Your task to perform on an android device: What's the weather? Image 0: 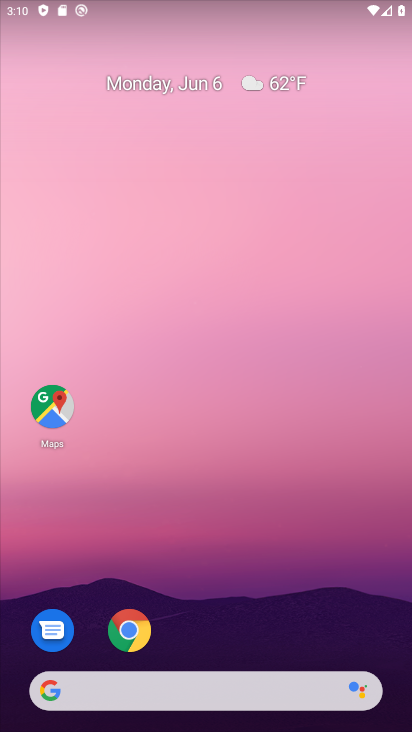
Step 0: press home button
Your task to perform on an android device: What's the weather? Image 1: 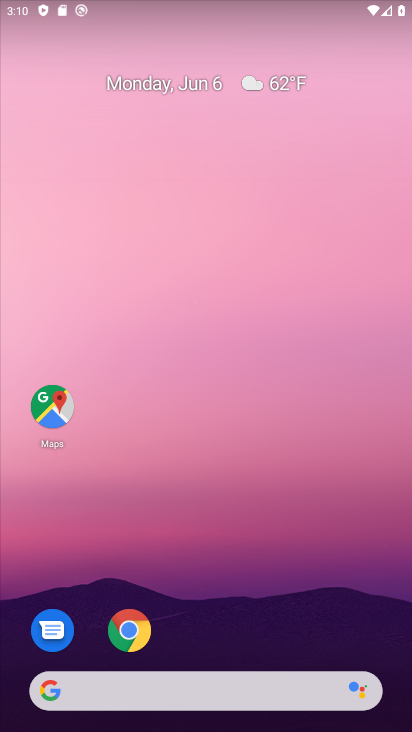
Step 1: click (120, 611)
Your task to perform on an android device: What's the weather? Image 2: 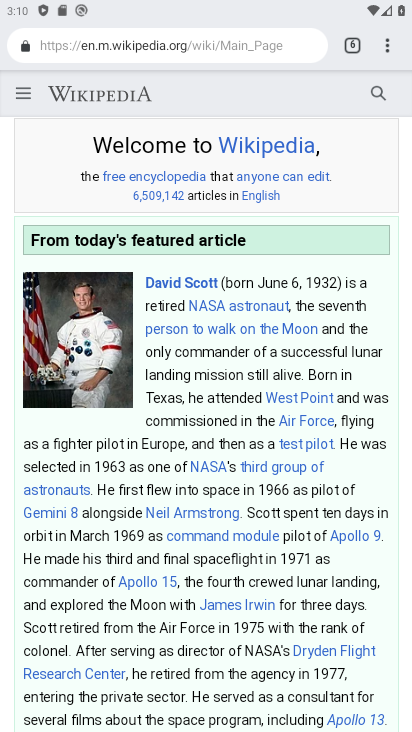
Step 2: click (170, 47)
Your task to perform on an android device: What's the weather? Image 3: 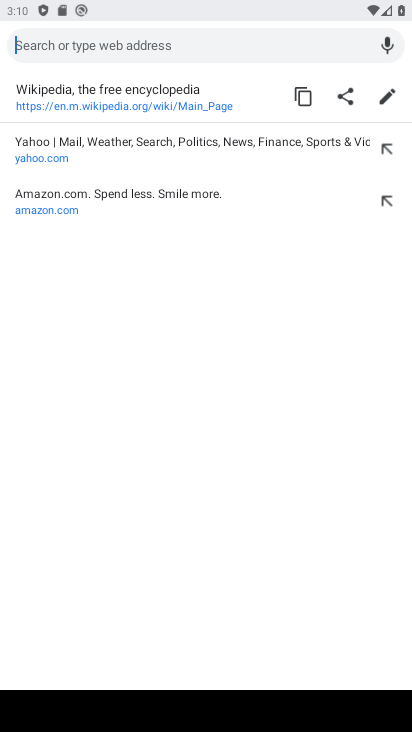
Step 3: type "What's the weather?"
Your task to perform on an android device: What's the weather? Image 4: 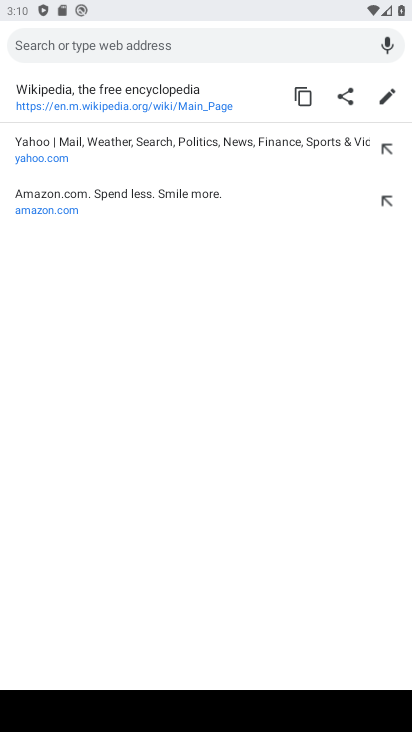
Step 4: click (99, 98)
Your task to perform on an android device: What's the weather? Image 5: 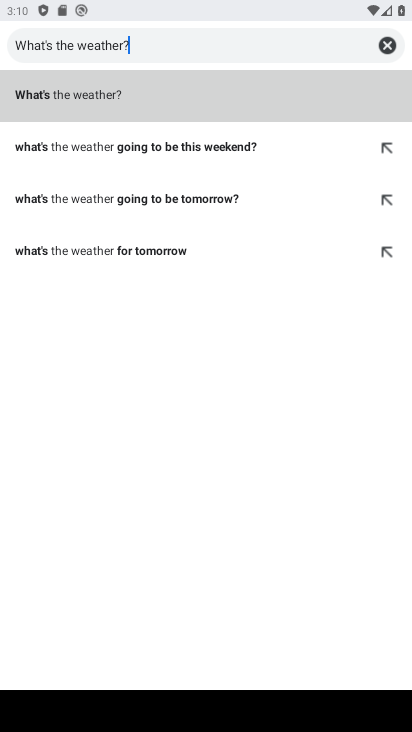
Step 5: type ""
Your task to perform on an android device: What's the weather? Image 6: 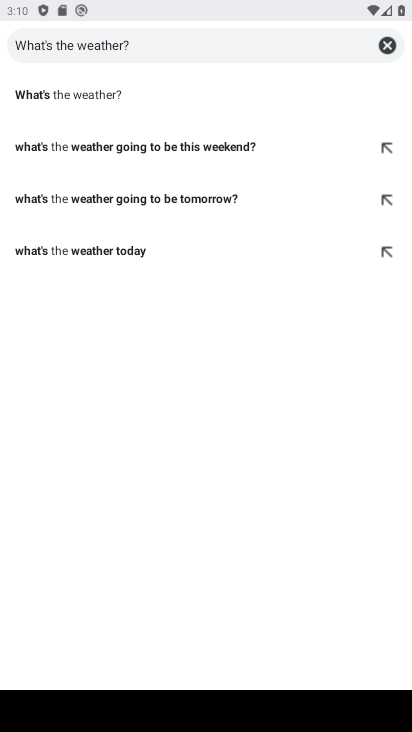
Step 6: click (84, 85)
Your task to perform on an android device: What's the weather? Image 7: 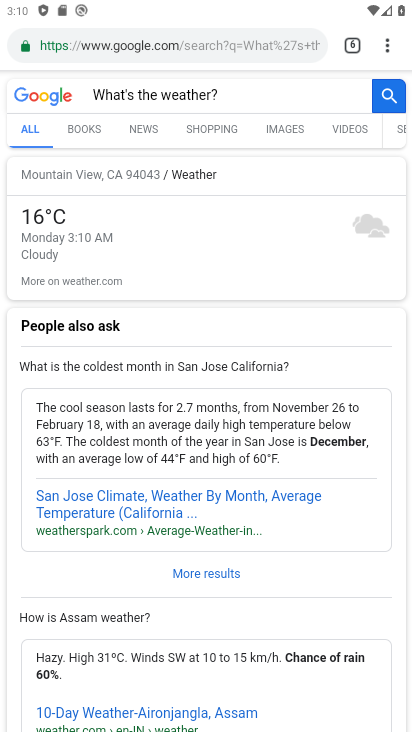
Step 7: task complete